Your task to perform on an android device: open wifi settings Image 0: 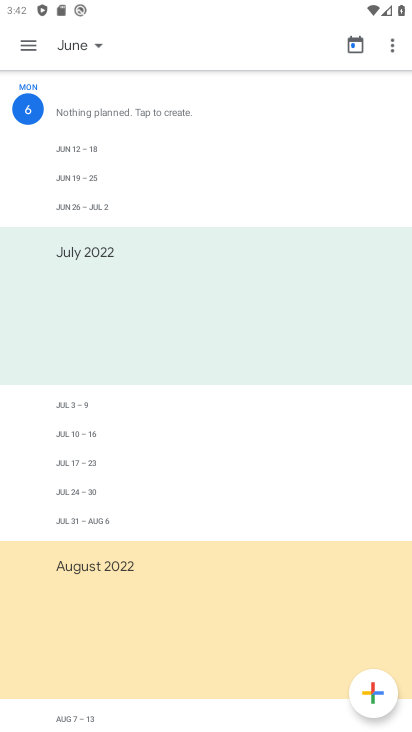
Step 0: press home button
Your task to perform on an android device: open wifi settings Image 1: 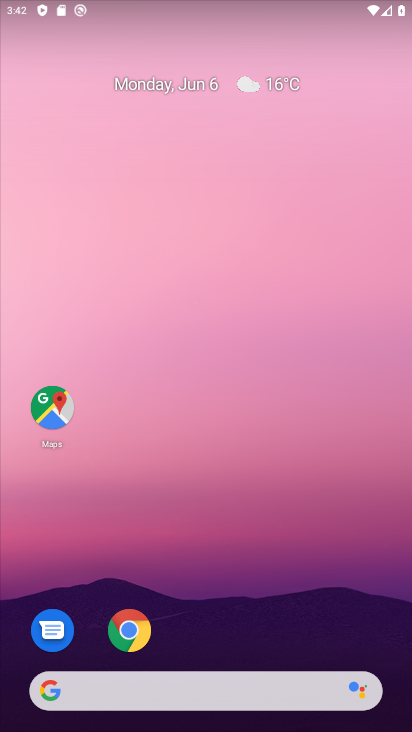
Step 1: drag from (214, 664) to (308, 234)
Your task to perform on an android device: open wifi settings Image 2: 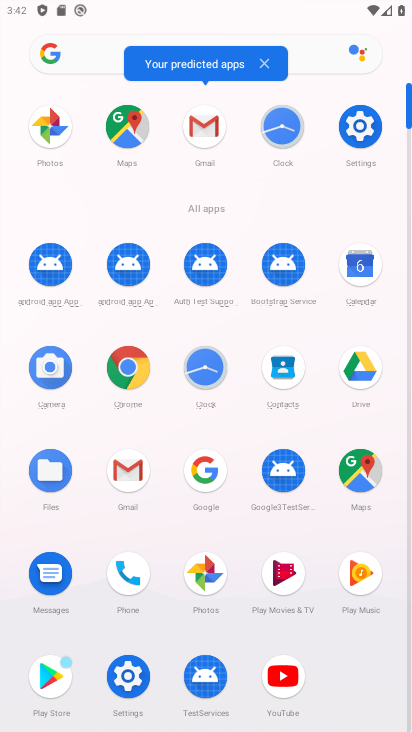
Step 2: drag from (184, 618) to (265, 341)
Your task to perform on an android device: open wifi settings Image 3: 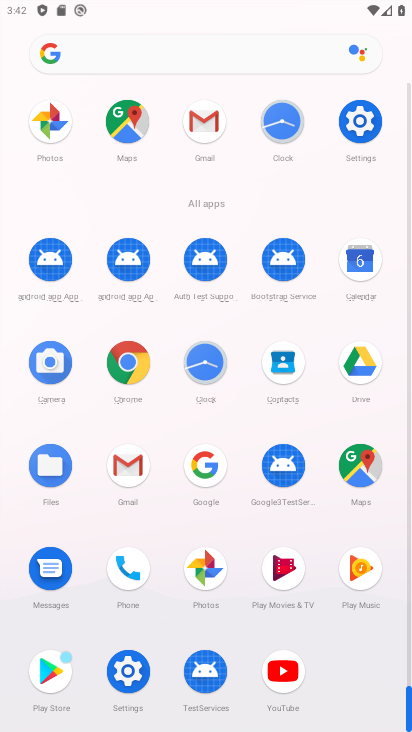
Step 3: click (129, 674)
Your task to perform on an android device: open wifi settings Image 4: 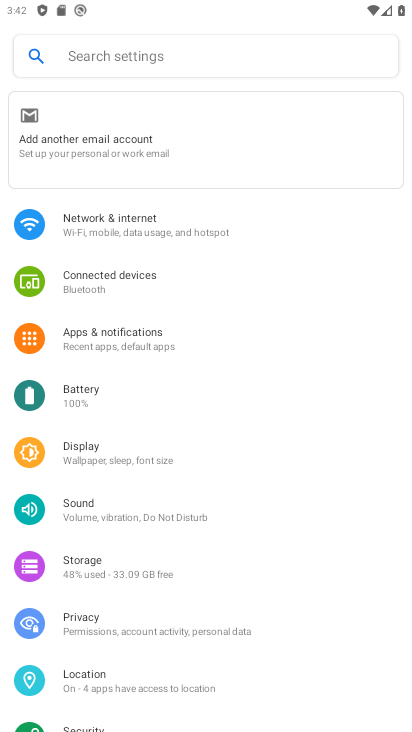
Step 4: click (166, 229)
Your task to perform on an android device: open wifi settings Image 5: 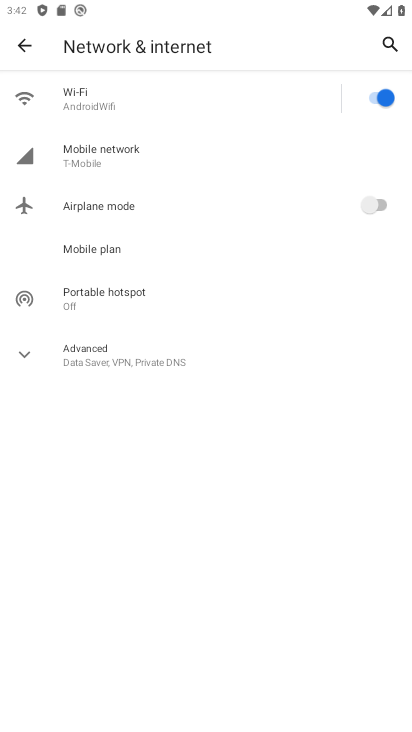
Step 5: click (142, 116)
Your task to perform on an android device: open wifi settings Image 6: 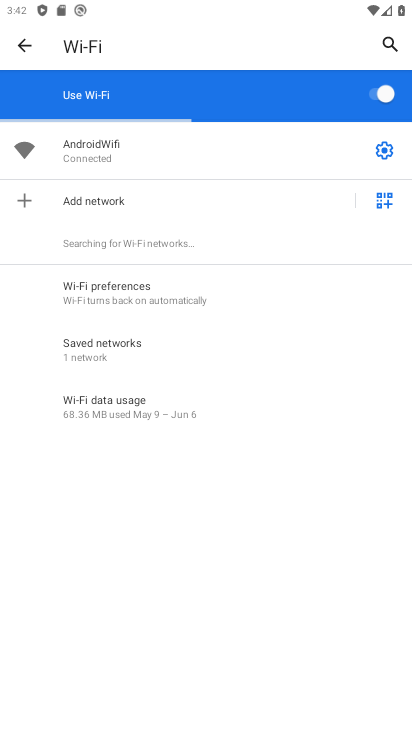
Step 6: task complete